Your task to perform on an android device: Open calendar and show me the second week of next month Image 0: 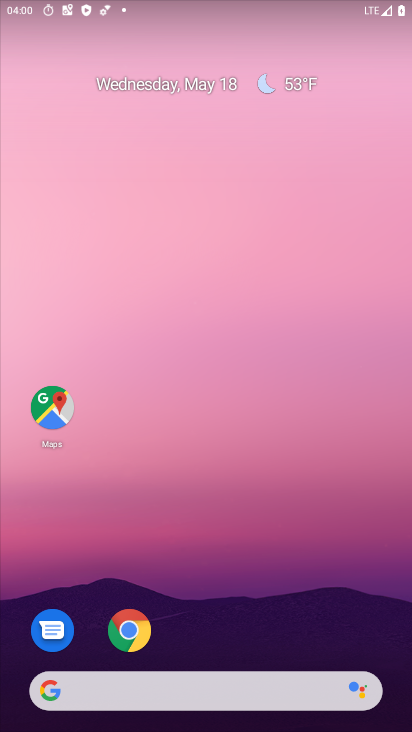
Step 0: drag from (211, 633) to (239, 162)
Your task to perform on an android device: Open calendar and show me the second week of next month Image 1: 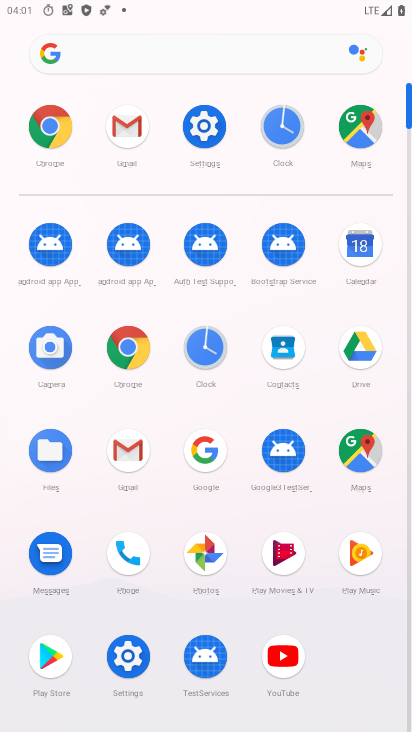
Step 1: click (356, 242)
Your task to perform on an android device: Open calendar and show me the second week of next month Image 2: 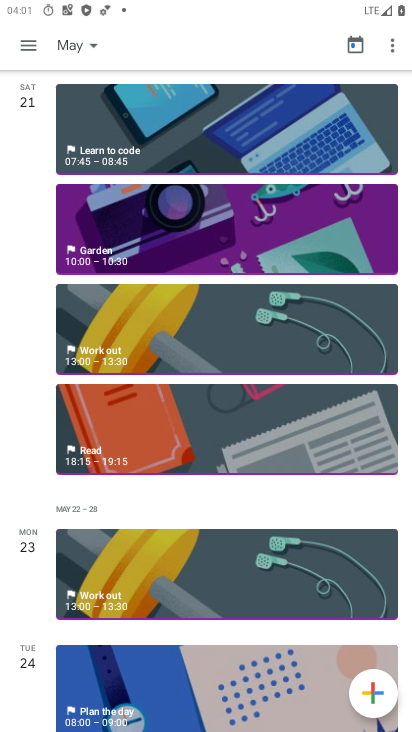
Step 2: click (59, 39)
Your task to perform on an android device: Open calendar and show me the second week of next month Image 3: 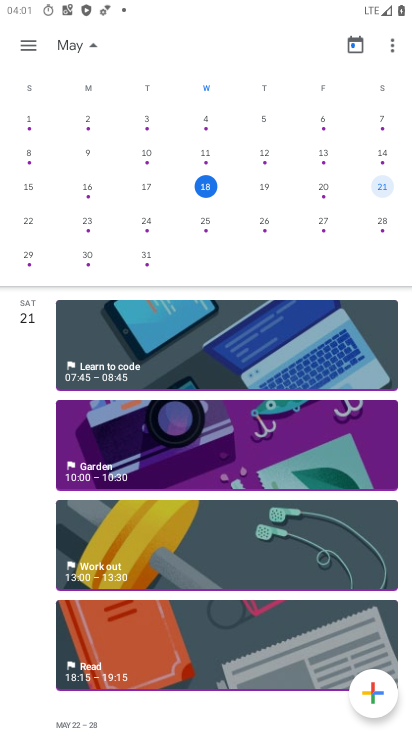
Step 3: drag from (322, 166) to (7, 155)
Your task to perform on an android device: Open calendar and show me the second week of next month Image 4: 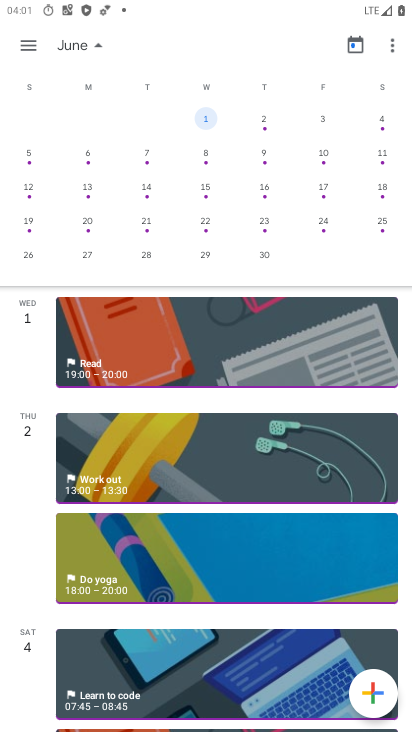
Step 4: click (87, 182)
Your task to perform on an android device: Open calendar and show me the second week of next month Image 5: 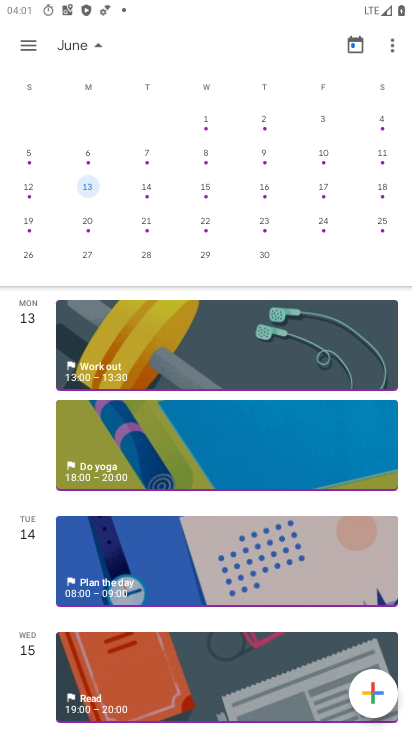
Step 5: click (84, 186)
Your task to perform on an android device: Open calendar and show me the second week of next month Image 6: 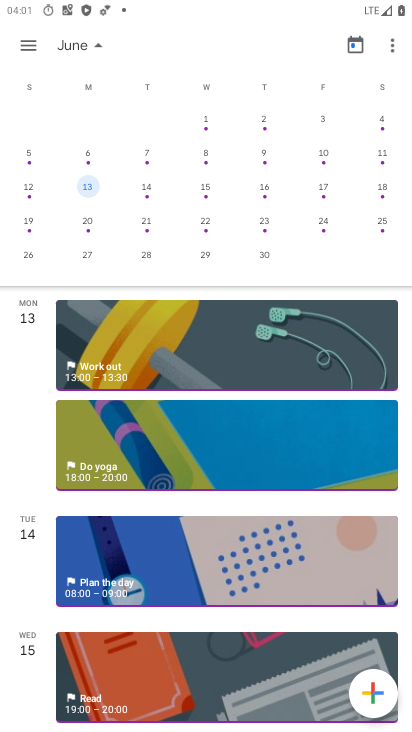
Step 6: click (96, 44)
Your task to perform on an android device: Open calendar and show me the second week of next month Image 7: 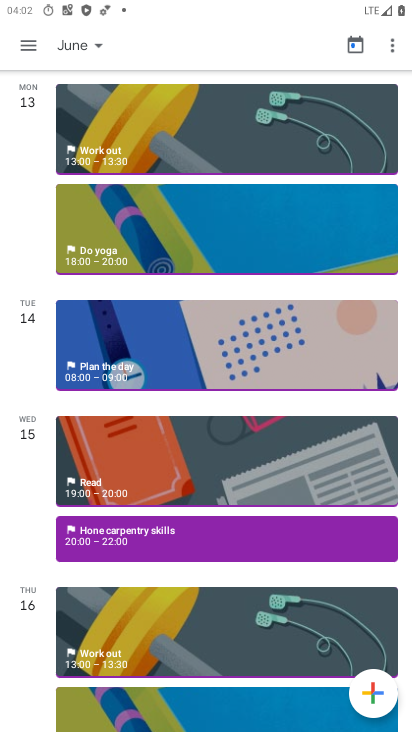
Step 7: task complete